Your task to perform on an android device: remove spam from my inbox in the gmail app Image 0: 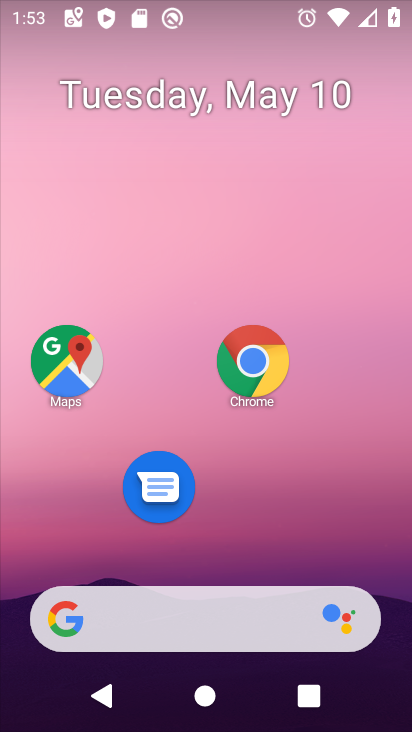
Step 0: drag from (350, 565) to (262, 170)
Your task to perform on an android device: remove spam from my inbox in the gmail app Image 1: 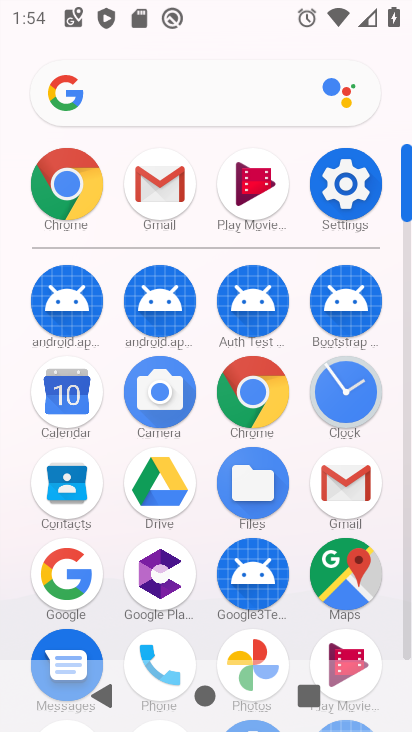
Step 1: click (158, 200)
Your task to perform on an android device: remove spam from my inbox in the gmail app Image 2: 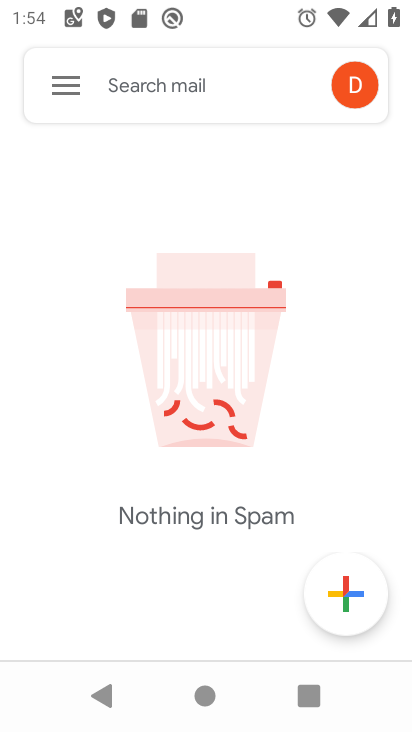
Step 2: click (59, 85)
Your task to perform on an android device: remove spam from my inbox in the gmail app Image 3: 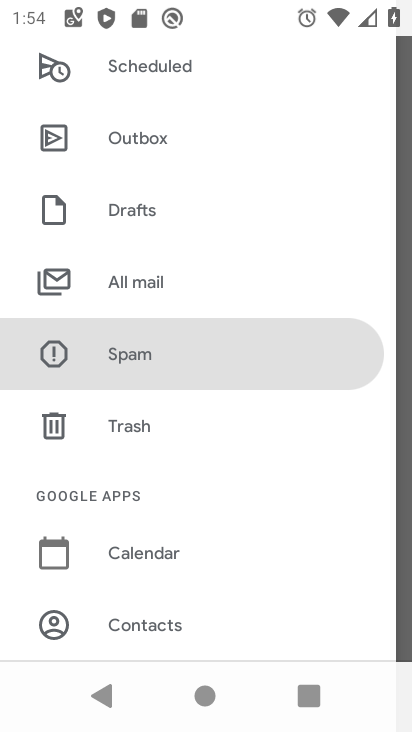
Step 3: click (133, 367)
Your task to perform on an android device: remove spam from my inbox in the gmail app Image 4: 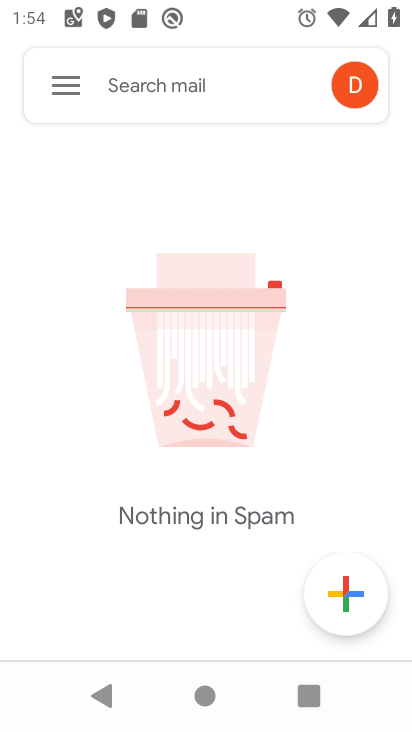
Step 4: task complete